Your task to perform on an android device: What's the weather going to be tomorrow? Image 0: 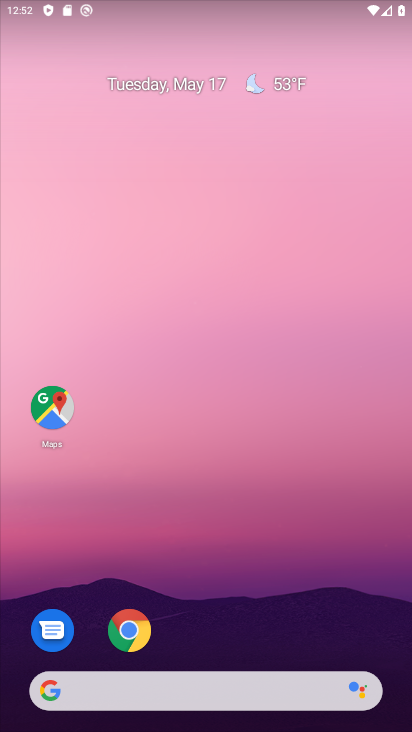
Step 0: drag from (250, 482) to (209, 20)
Your task to perform on an android device: What's the weather going to be tomorrow? Image 1: 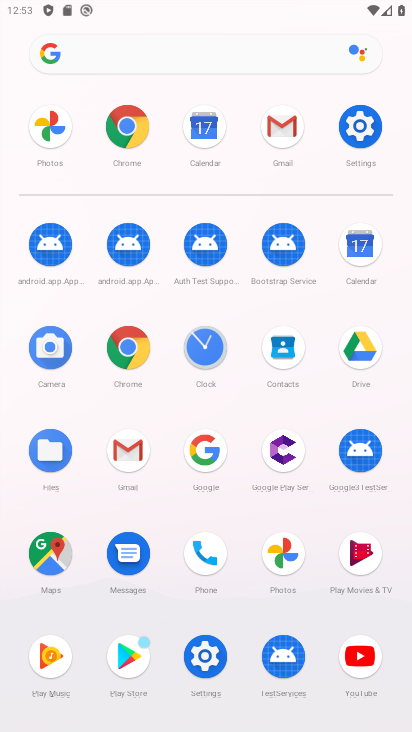
Step 1: click (209, 481)
Your task to perform on an android device: What's the weather going to be tomorrow? Image 2: 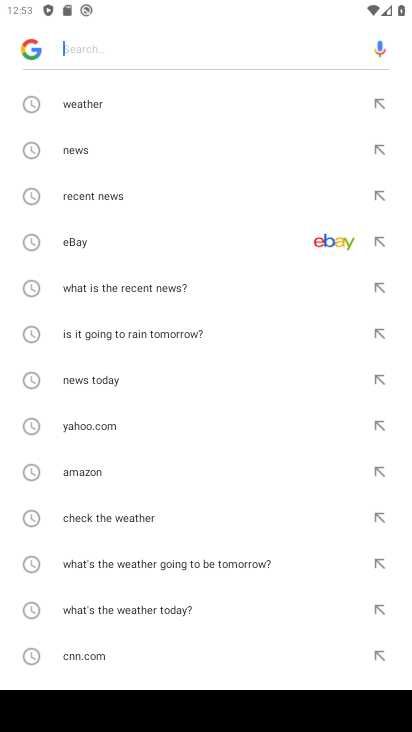
Step 2: click (162, 101)
Your task to perform on an android device: What's the weather going to be tomorrow? Image 3: 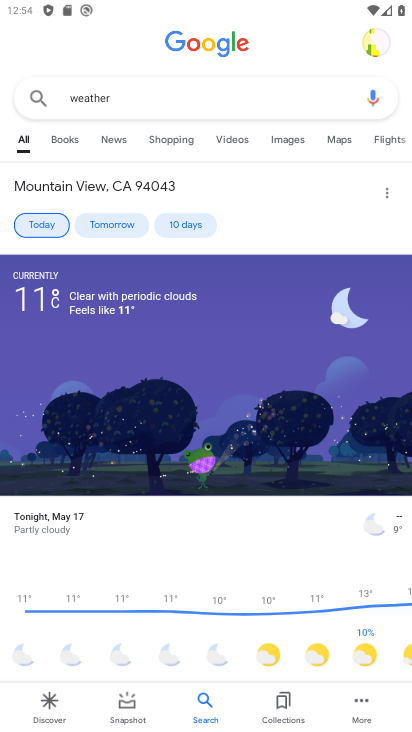
Step 3: click (119, 232)
Your task to perform on an android device: What's the weather going to be tomorrow? Image 4: 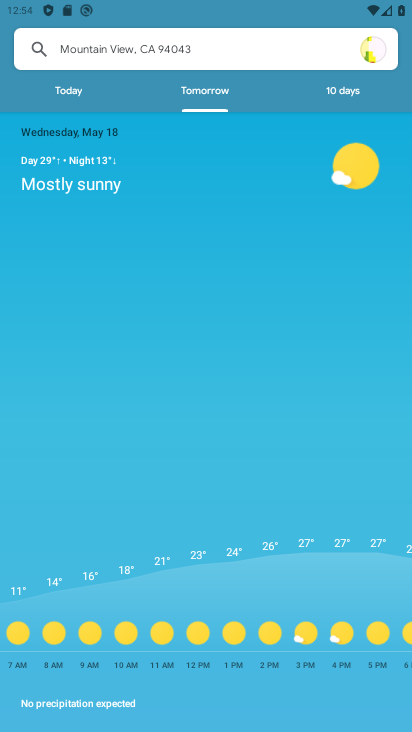
Step 4: task complete